Your task to perform on an android device: Open network settings Image 0: 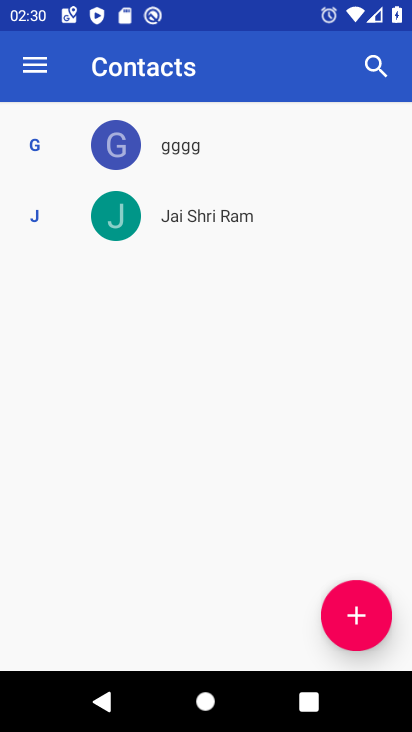
Step 0: drag from (335, 551) to (318, 292)
Your task to perform on an android device: Open network settings Image 1: 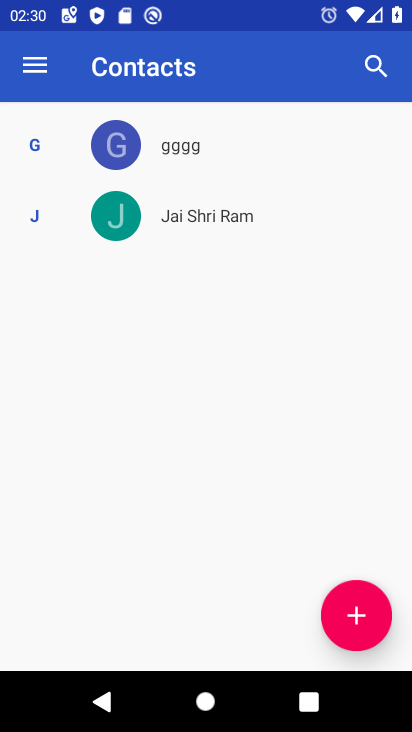
Step 1: press home button
Your task to perform on an android device: Open network settings Image 2: 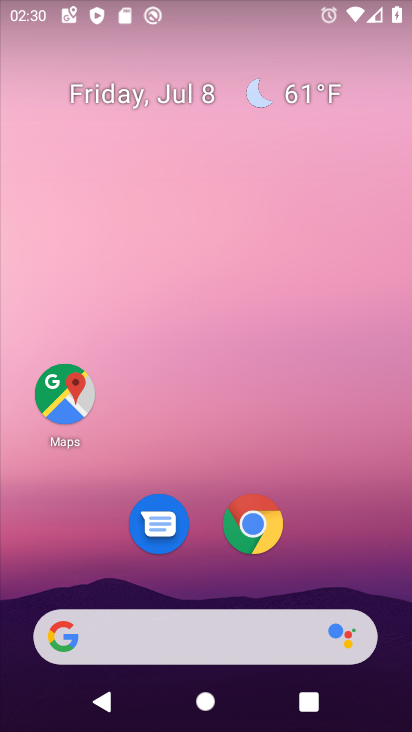
Step 2: drag from (312, 545) to (296, 49)
Your task to perform on an android device: Open network settings Image 3: 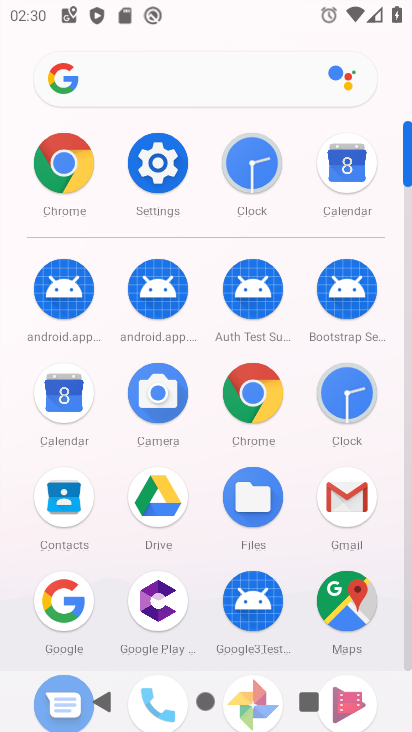
Step 3: click (167, 168)
Your task to perform on an android device: Open network settings Image 4: 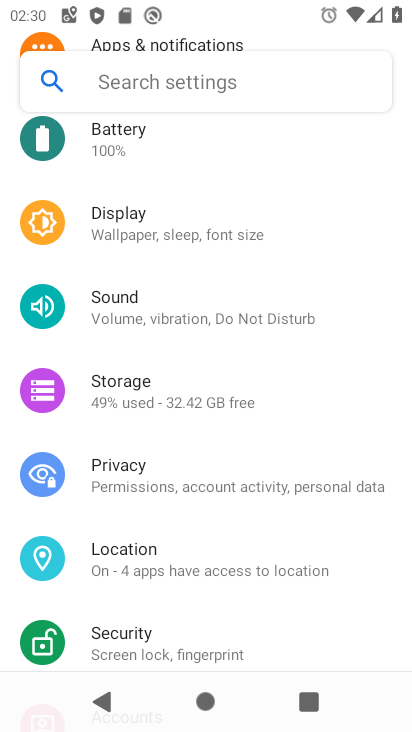
Step 4: drag from (344, 186) to (386, 612)
Your task to perform on an android device: Open network settings Image 5: 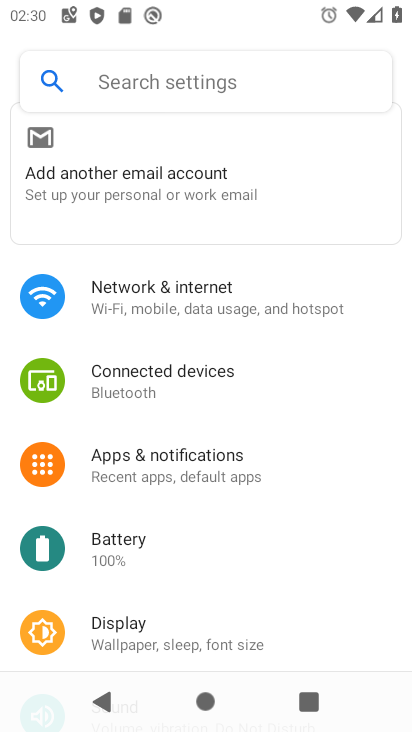
Step 5: click (246, 292)
Your task to perform on an android device: Open network settings Image 6: 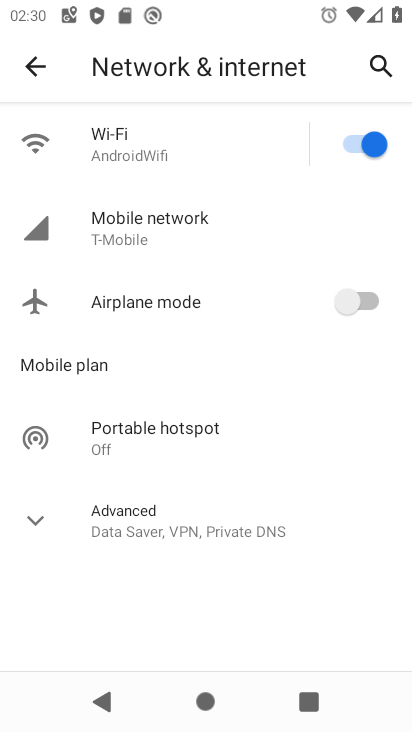
Step 6: click (33, 514)
Your task to perform on an android device: Open network settings Image 7: 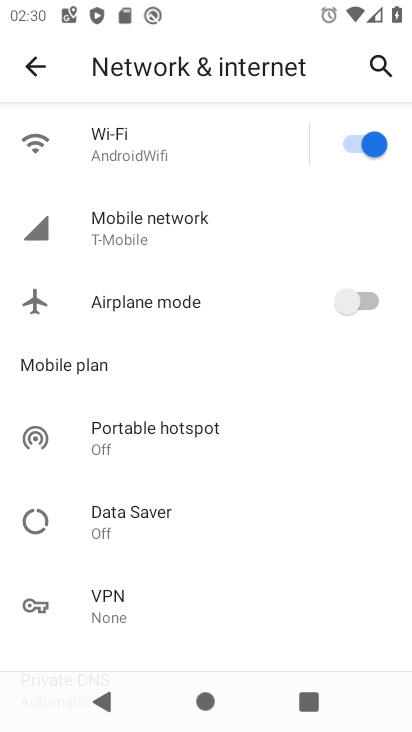
Step 7: task complete